Your task to perform on an android device: Go to location settings Image 0: 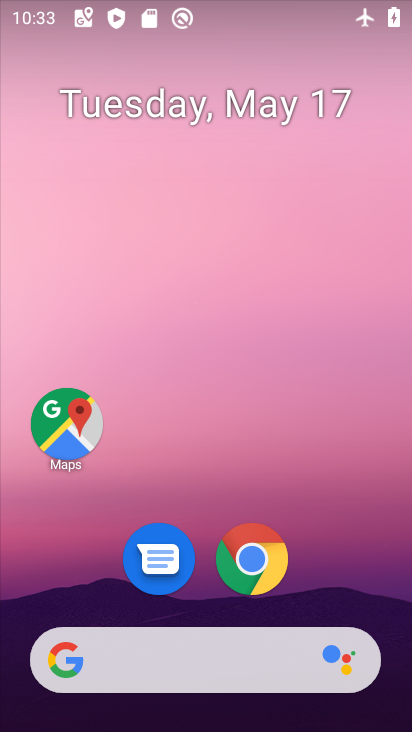
Step 0: drag from (177, 727) to (190, 147)
Your task to perform on an android device: Go to location settings Image 1: 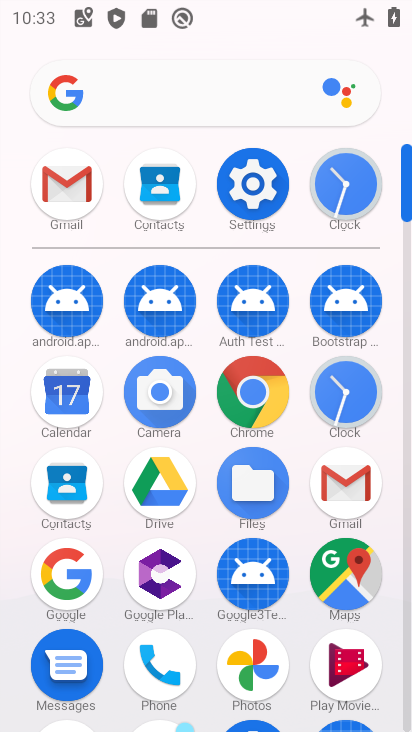
Step 1: click (250, 180)
Your task to perform on an android device: Go to location settings Image 2: 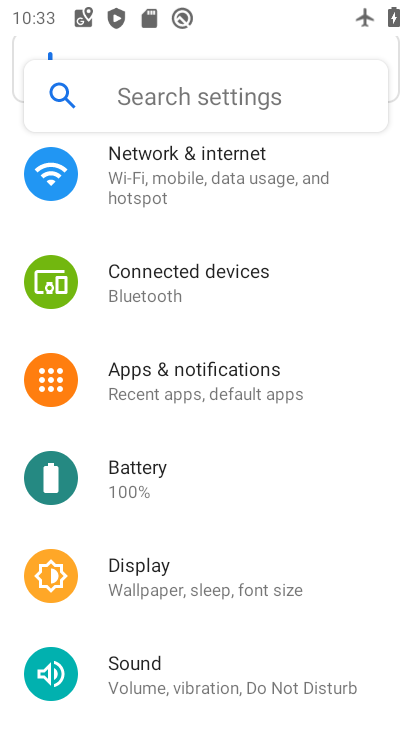
Step 2: drag from (236, 569) to (236, 250)
Your task to perform on an android device: Go to location settings Image 3: 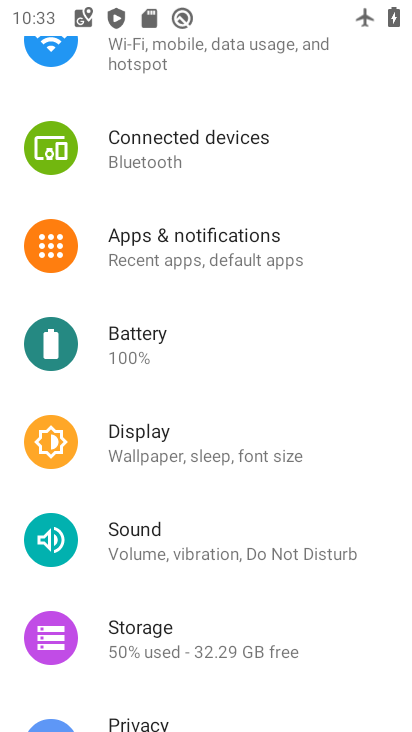
Step 3: drag from (213, 697) to (203, 288)
Your task to perform on an android device: Go to location settings Image 4: 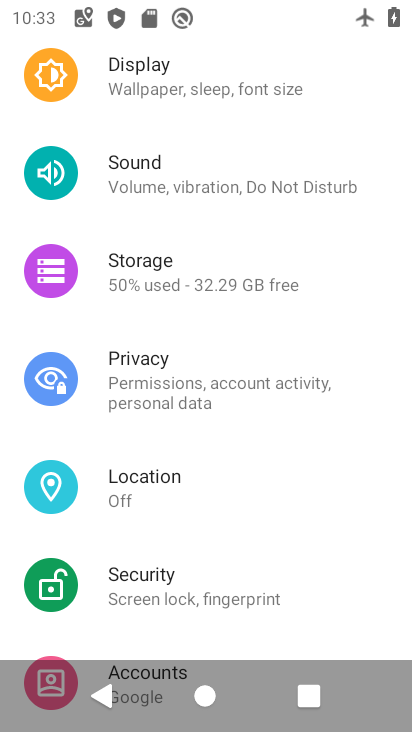
Step 4: click (153, 489)
Your task to perform on an android device: Go to location settings Image 5: 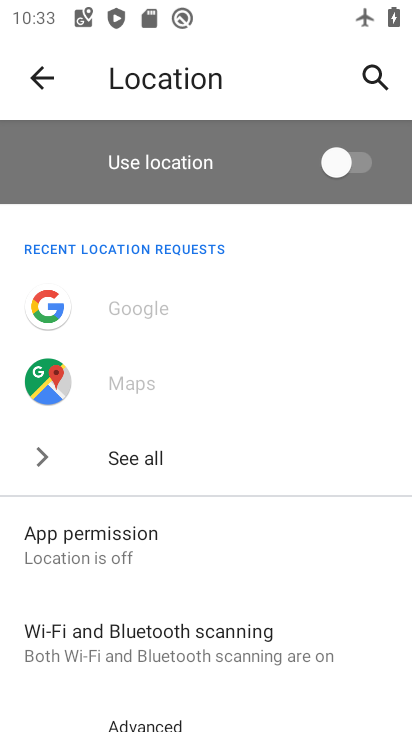
Step 5: task complete